Your task to perform on an android device: Go to Google Image 0: 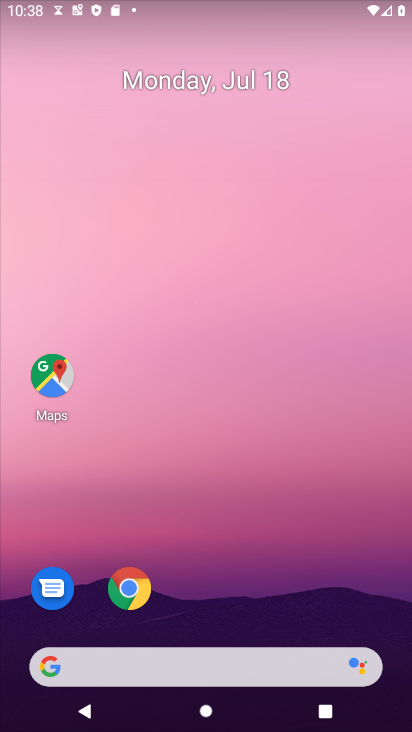
Step 0: drag from (254, 725) to (235, 115)
Your task to perform on an android device: Go to Google Image 1: 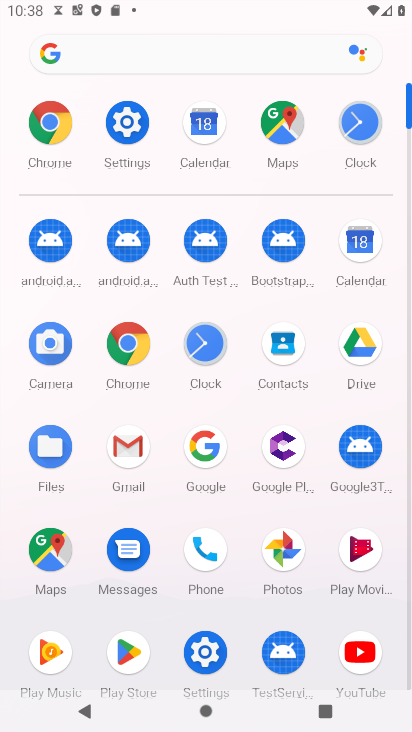
Step 1: click (203, 451)
Your task to perform on an android device: Go to Google Image 2: 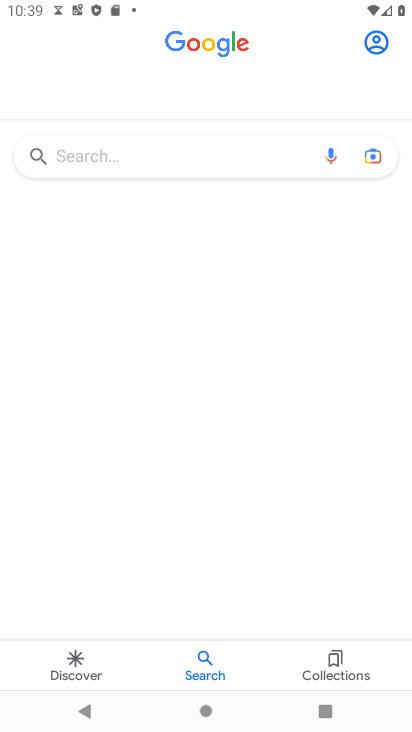
Step 2: task complete